Your task to perform on an android device: move a message to another label in the gmail app Image 0: 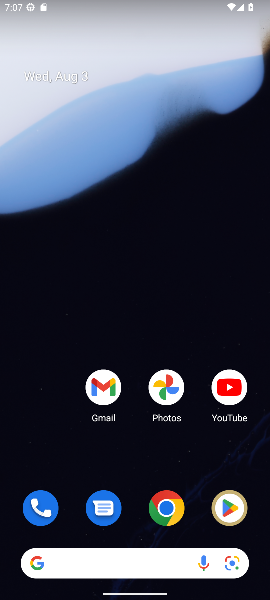
Step 0: click (249, 502)
Your task to perform on an android device: move a message to another label in the gmail app Image 1: 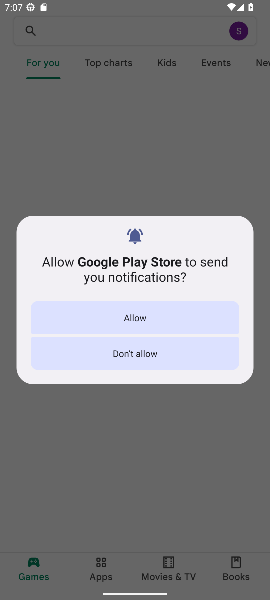
Step 1: press back button
Your task to perform on an android device: move a message to another label in the gmail app Image 2: 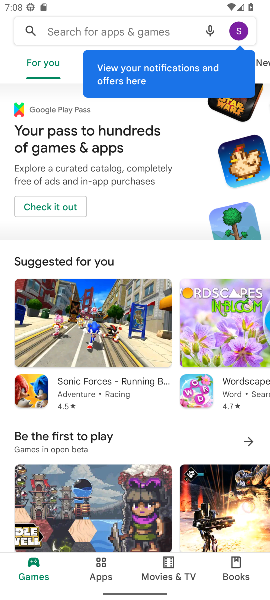
Step 2: press home button
Your task to perform on an android device: move a message to another label in the gmail app Image 3: 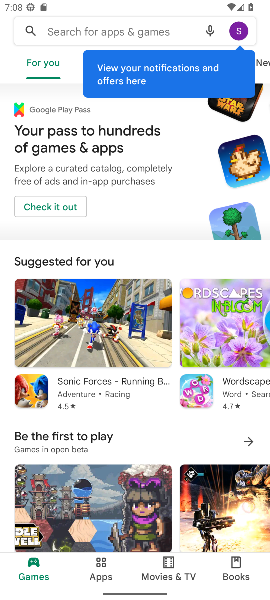
Step 3: press home button
Your task to perform on an android device: move a message to another label in the gmail app Image 4: 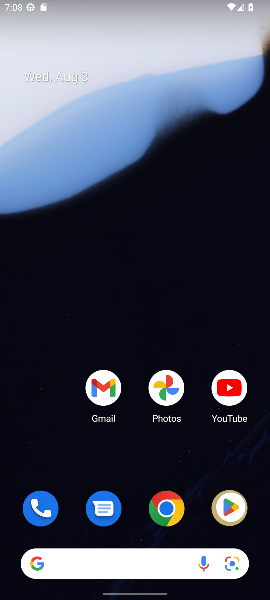
Step 4: press home button
Your task to perform on an android device: move a message to another label in the gmail app Image 5: 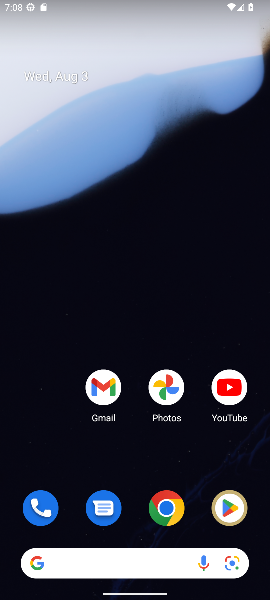
Step 5: drag from (199, 457) to (154, 101)
Your task to perform on an android device: move a message to another label in the gmail app Image 6: 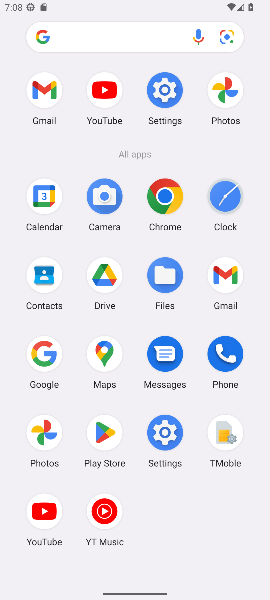
Step 6: click (45, 86)
Your task to perform on an android device: move a message to another label in the gmail app Image 7: 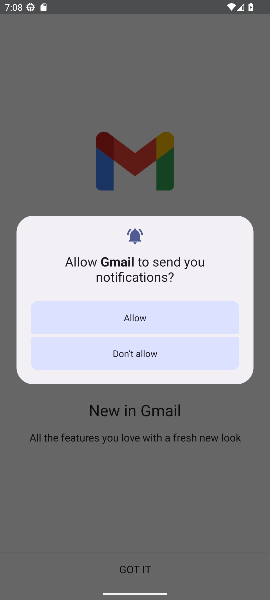
Step 7: click (142, 321)
Your task to perform on an android device: move a message to another label in the gmail app Image 8: 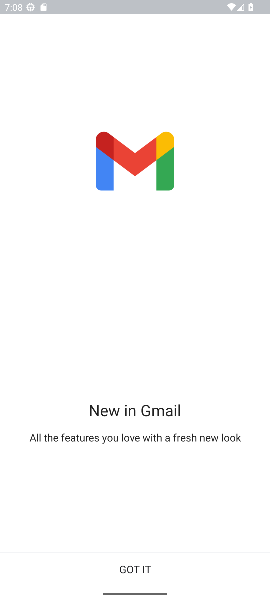
Step 8: click (140, 567)
Your task to perform on an android device: move a message to another label in the gmail app Image 9: 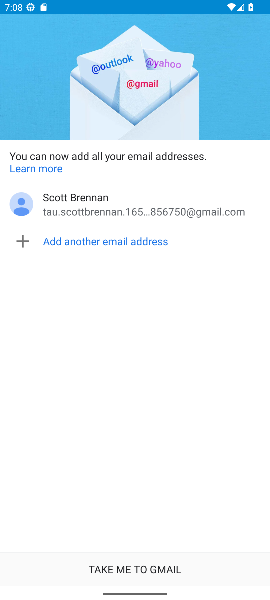
Step 9: click (140, 567)
Your task to perform on an android device: move a message to another label in the gmail app Image 10: 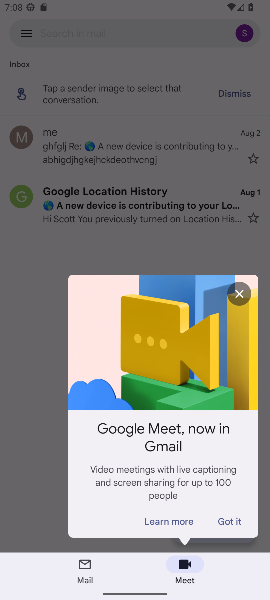
Step 10: click (243, 295)
Your task to perform on an android device: move a message to another label in the gmail app Image 11: 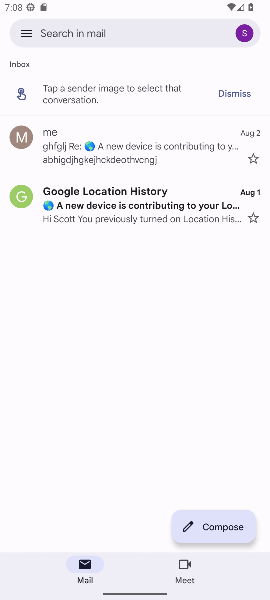
Step 11: click (124, 139)
Your task to perform on an android device: move a message to another label in the gmail app Image 12: 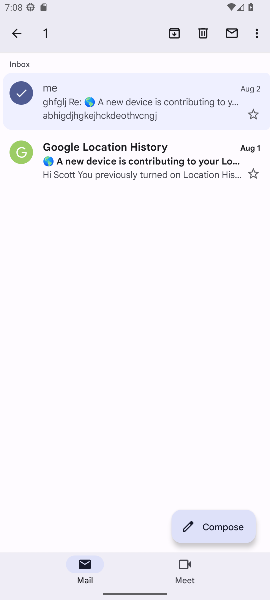
Step 12: click (260, 30)
Your task to perform on an android device: move a message to another label in the gmail app Image 13: 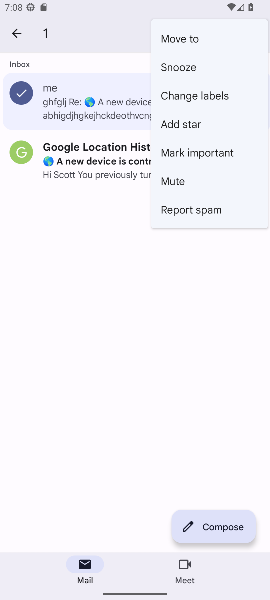
Step 13: click (219, 41)
Your task to perform on an android device: move a message to another label in the gmail app Image 14: 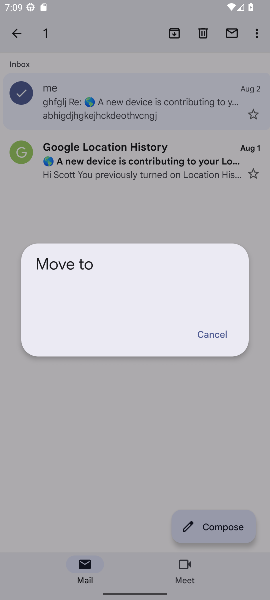
Step 14: task complete